Your task to perform on an android device: Open Google Maps Image 0: 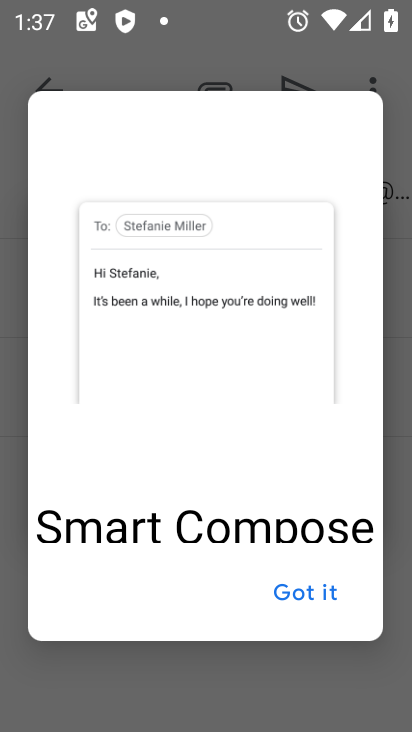
Step 0: press home button
Your task to perform on an android device: Open Google Maps Image 1: 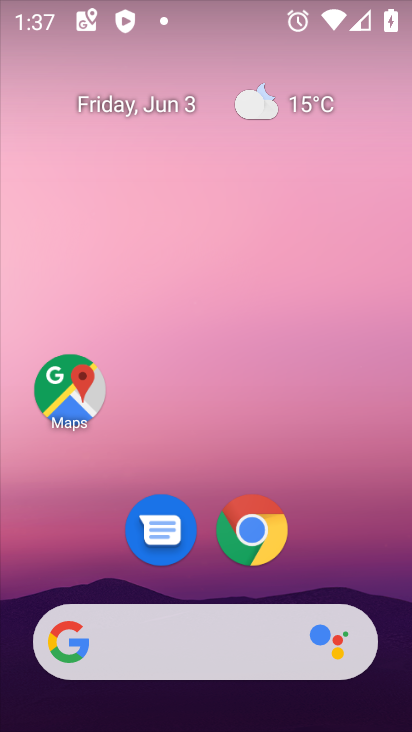
Step 1: click (81, 363)
Your task to perform on an android device: Open Google Maps Image 2: 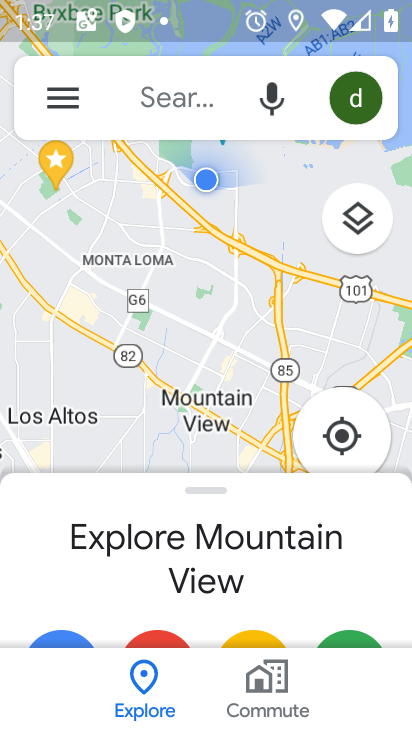
Step 2: task complete